Your task to perform on an android device: Open Chrome and go to settings Image 0: 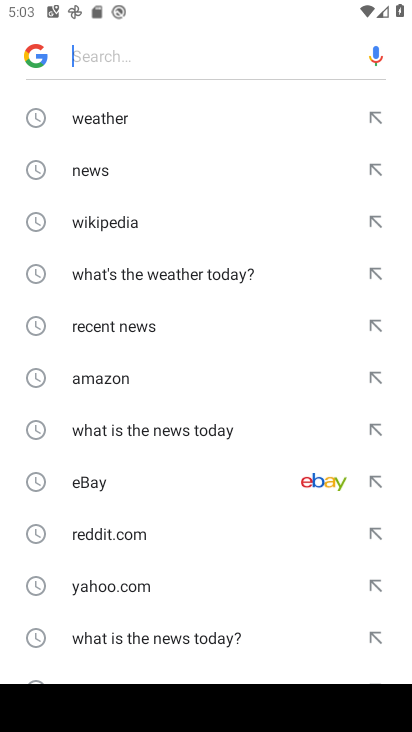
Step 0: press home button
Your task to perform on an android device: Open Chrome and go to settings Image 1: 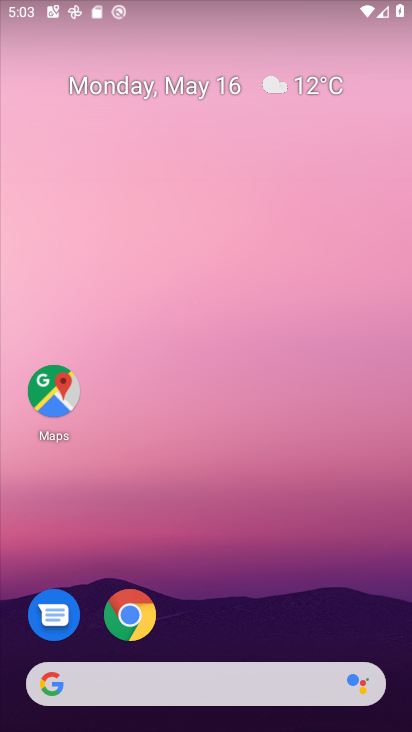
Step 1: drag from (232, 619) to (219, 26)
Your task to perform on an android device: Open Chrome and go to settings Image 2: 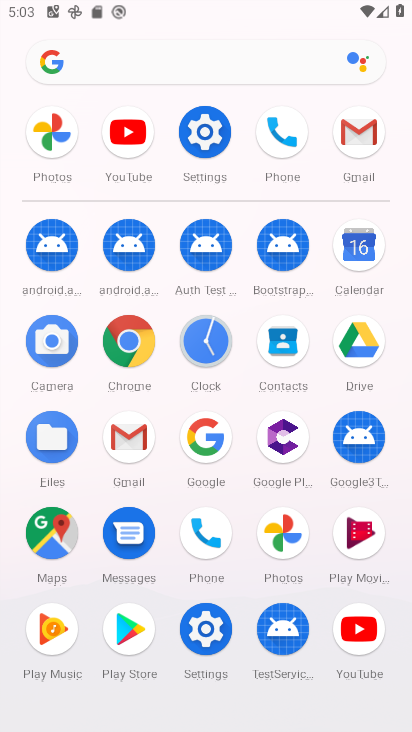
Step 2: click (127, 365)
Your task to perform on an android device: Open Chrome and go to settings Image 3: 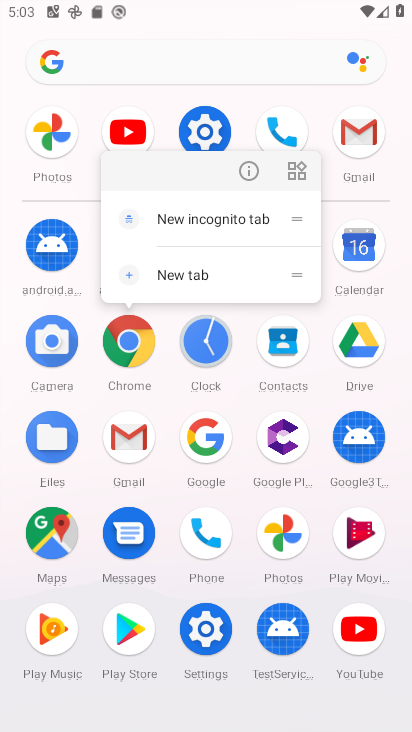
Step 3: click (130, 358)
Your task to perform on an android device: Open Chrome and go to settings Image 4: 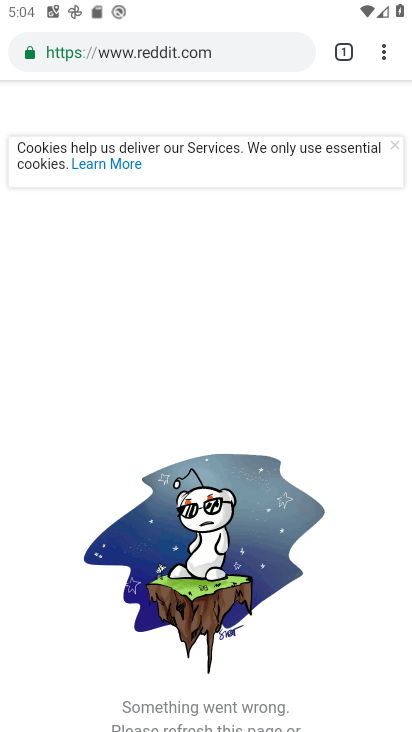
Step 4: click (387, 56)
Your task to perform on an android device: Open Chrome and go to settings Image 5: 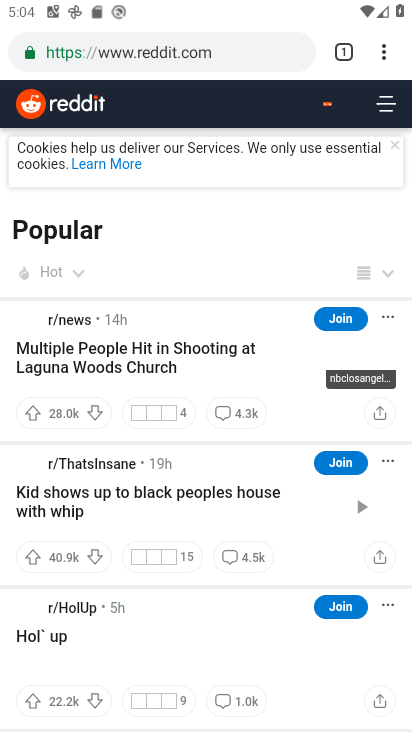
Step 5: click (382, 51)
Your task to perform on an android device: Open Chrome and go to settings Image 6: 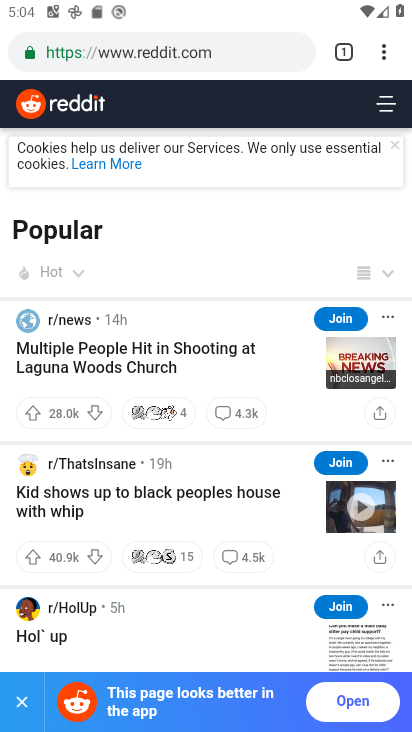
Step 6: click (382, 51)
Your task to perform on an android device: Open Chrome and go to settings Image 7: 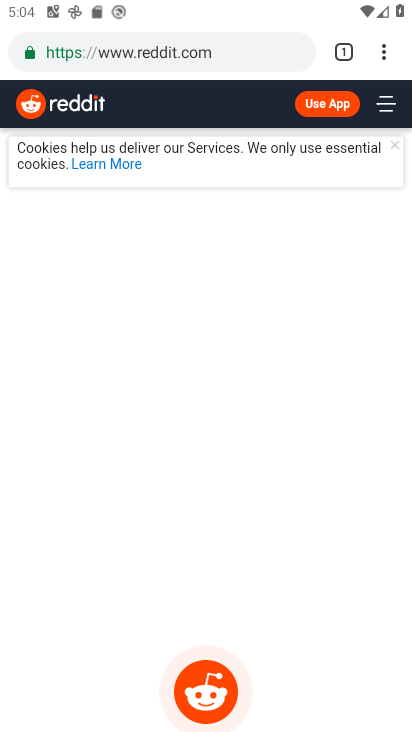
Step 7: click (387, 48)
Your task to perform on an android device: Open Chrome and go to settings Image 8: 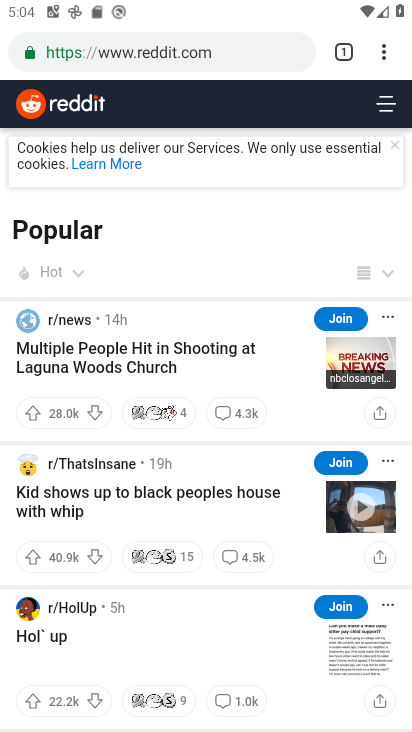
Step 8: click (385, 54)
Your task to perform on an android device: Open Chrome and go to settings Image 9: 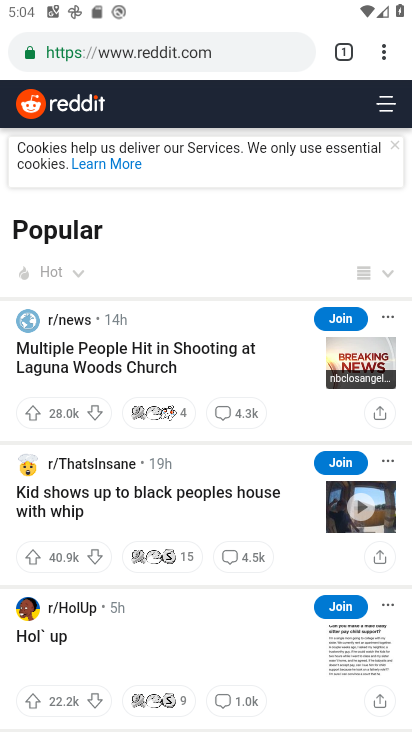
Step 9: click (382, 52)
Your task to perform on an android device: Open Chrome and go to settings Image 10: 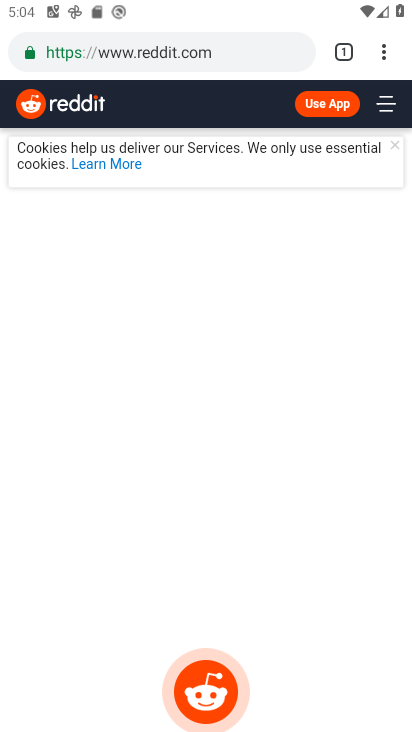
Step 10: click (386, 56)
Your task to perform on an android device: Open Chrome and go to settings Image 11: 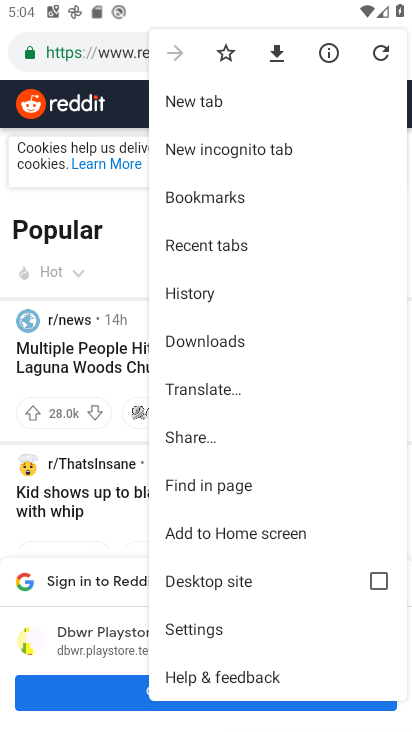
Step 11: click (192, 630)
Your task to perform on an android device: Open Chrome and go to settings Image 12: 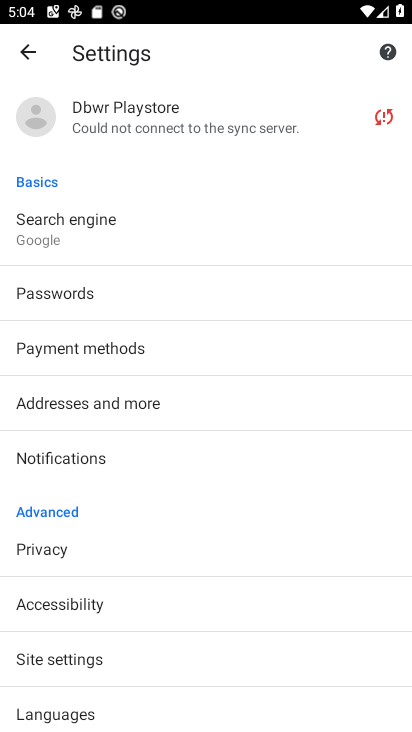
Step 12: drag from (130, 703) to (178, 347)
Your task to perform on an android device: Open Chrome and go to settings Image 13: 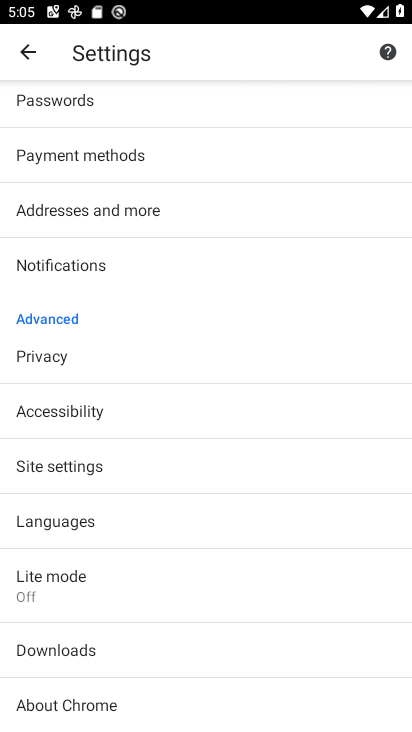
Step 13: click (25, 57)
Your task to perform on an android device: Open Chrome and go to settings Image 14: 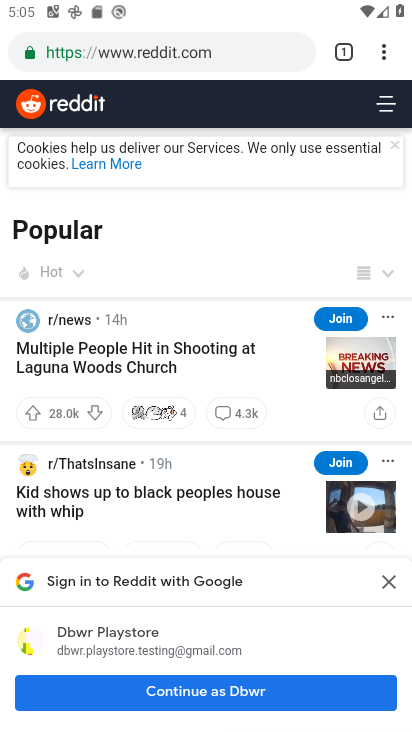
Step 14: click (382, 51)
Your task to perform on an android device: Open Chrome and go to settings Image 15: 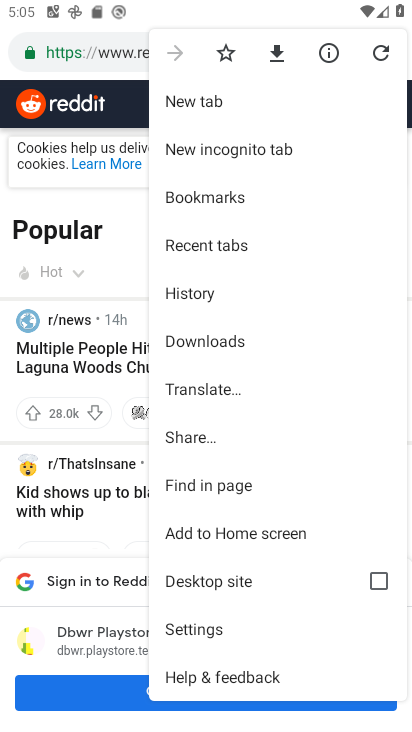
Step 15: click (214, 635)
Your task to perform on an android device: Open Chrome and go to settings Image 16: 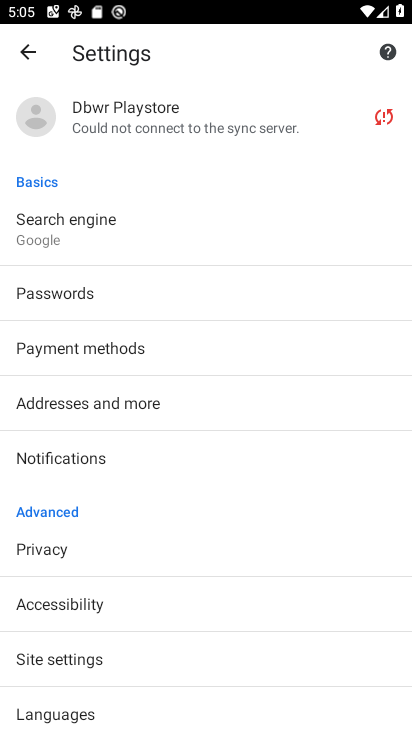
Step 16: task complete